Your task to perform on an android device: change timer sound Image 0: 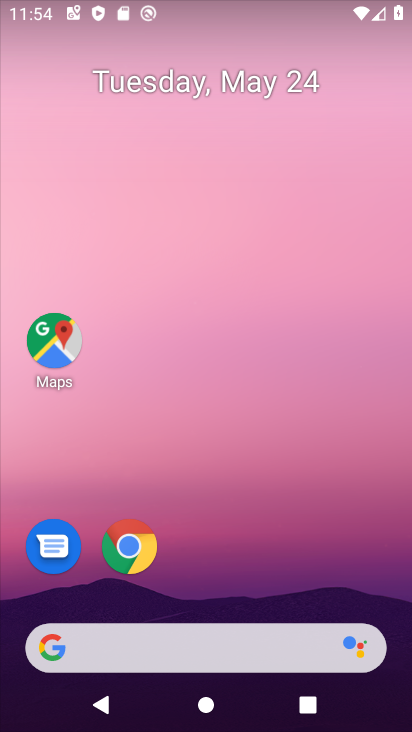
Step 0: drag from (226, 613) to (181, 196)
Your task to perform on an android device: change timer sound Image 1: 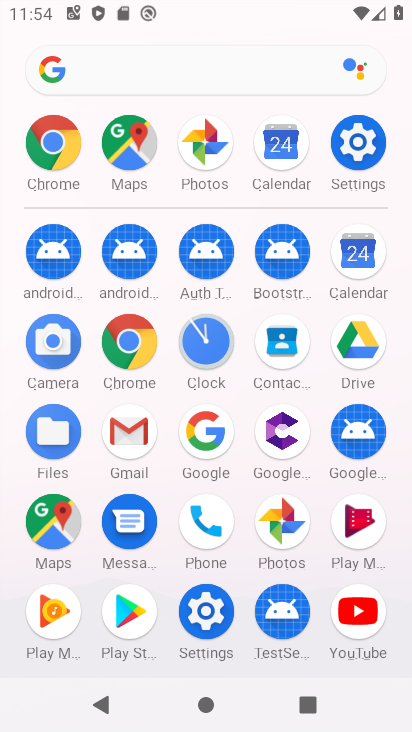
Step 1: click (345, 135)
Your task to perform on an android device: change timer sound Image 2: 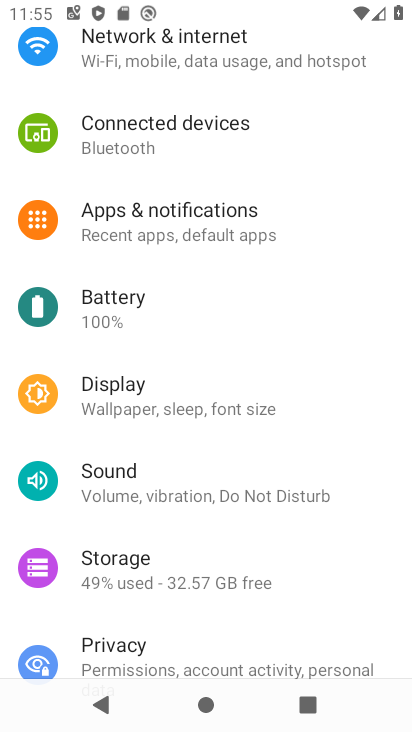
Step 2: press home button
Your task to perform on an android device: change timer sound Image 3: 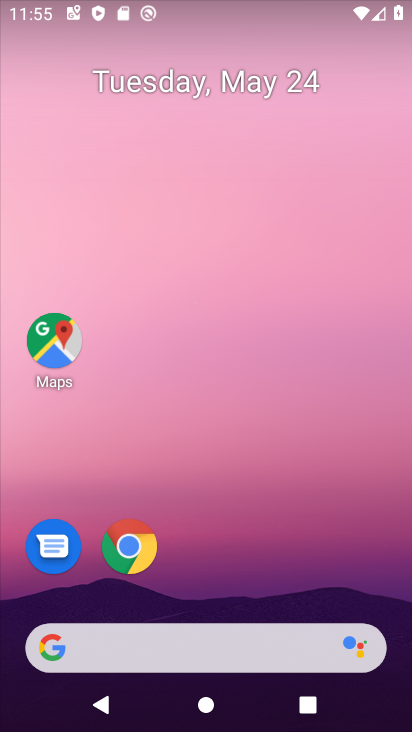
Step 3: drag from (261, 610) to (215, 88)
Your task to perform on an android device: change timer sound Image 4: 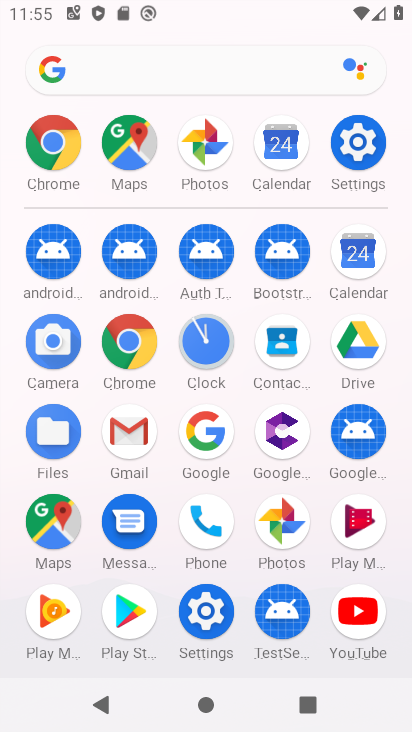
Step 4: click (209, 356)
Your task to perform on an android device: change timer sound Image 5: 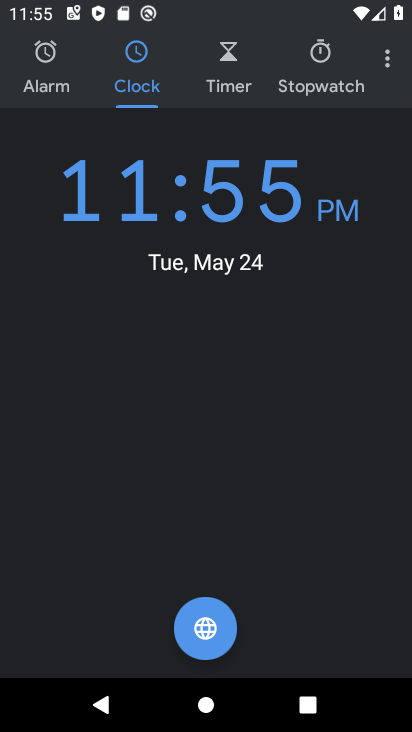
Step 5: click (386, 67)
Your task to perform on an android device: change timer sound Image 6: 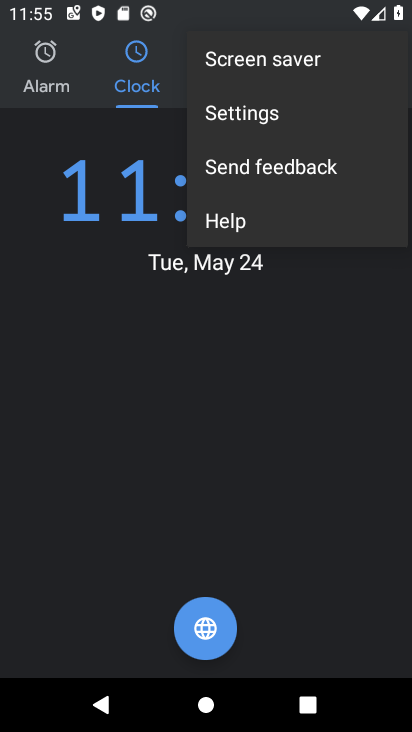
Step 6: click (321, 120)
Your task to perform on an android device: change timer sound Image 7: 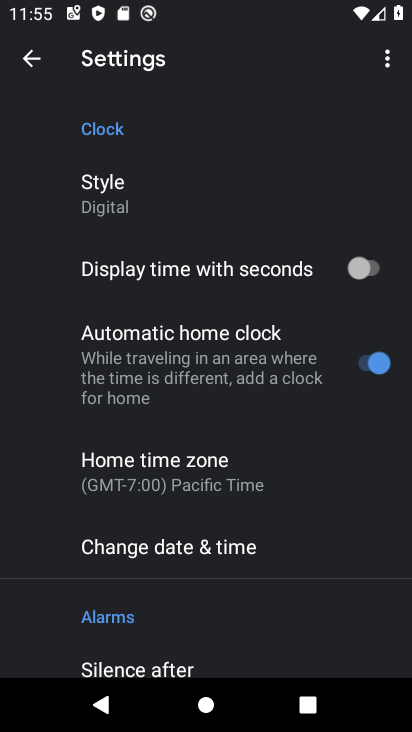
Step 7: drag from (280, 611) to (199, 80)
Your task to perform on an android device: change timer sound Image 8: 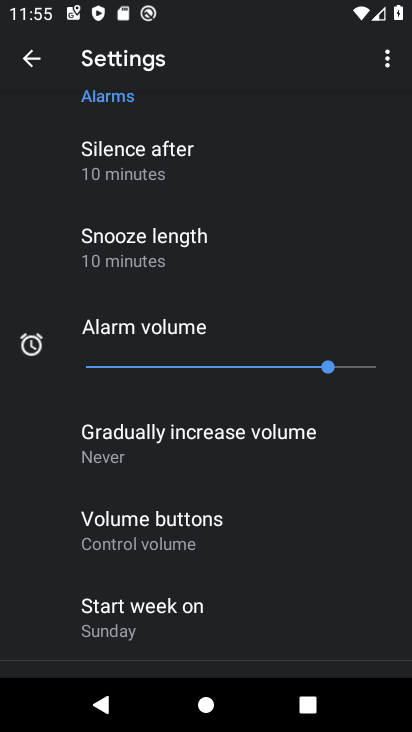
Step 8: drag from (240, 564) to (192, 117)
Your task to perform on an android device: change timer sound Image 9: 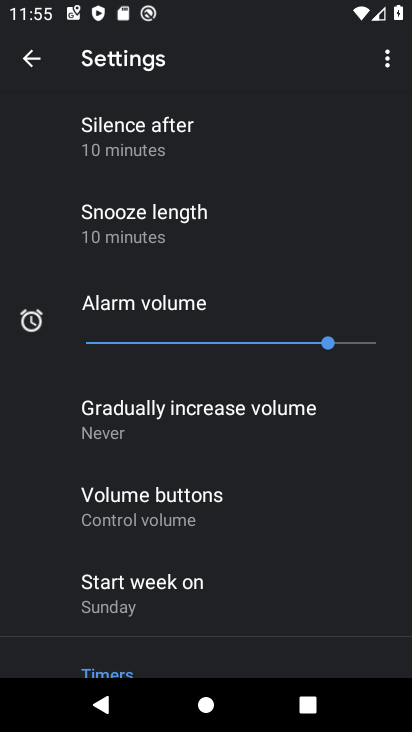
Step 9: drag from (248, 524) to (209, 137)
Your task to perform on an android device: change timer sound Image 10: 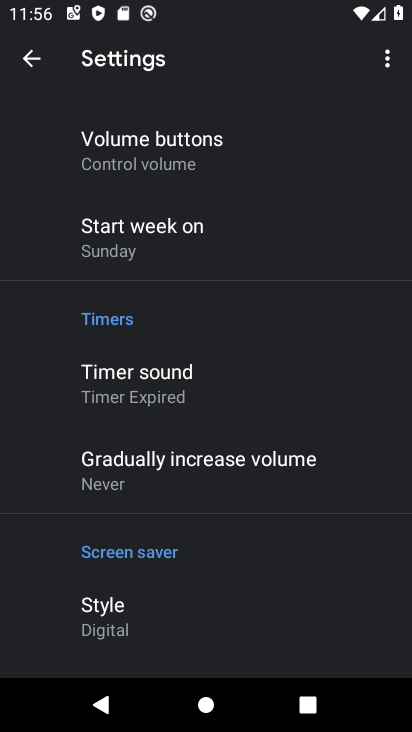
Step 10: click (200, 403)
Your task to perform on an android device: change timer sound Image 11: 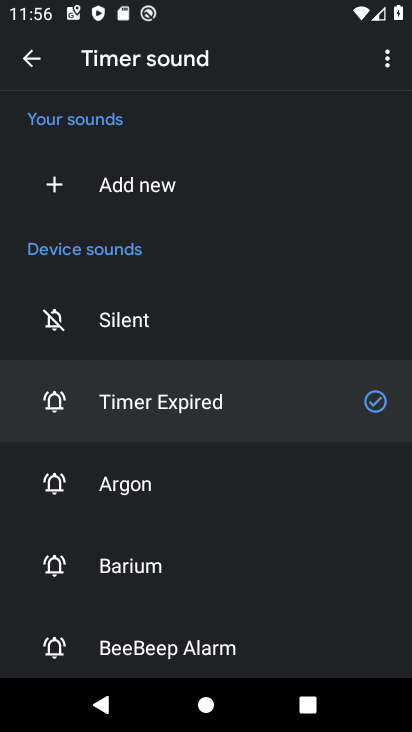
Step 11: click (185, 517)
Your task to perform on an android device: change timer sound Image 12: 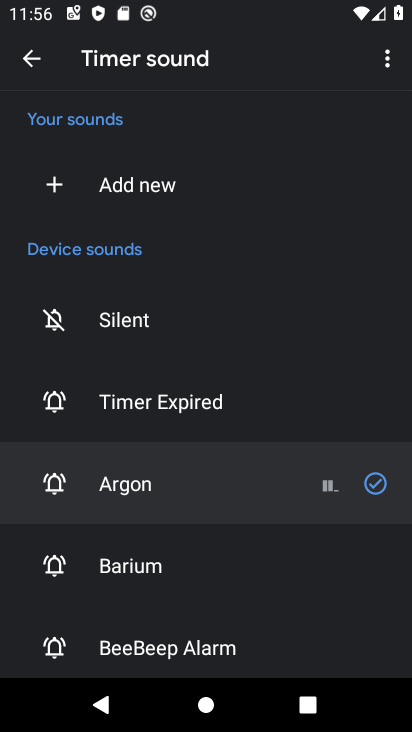
Step 12: task complete